Your task to perform on an android device: Go to wifi settings Image 0: 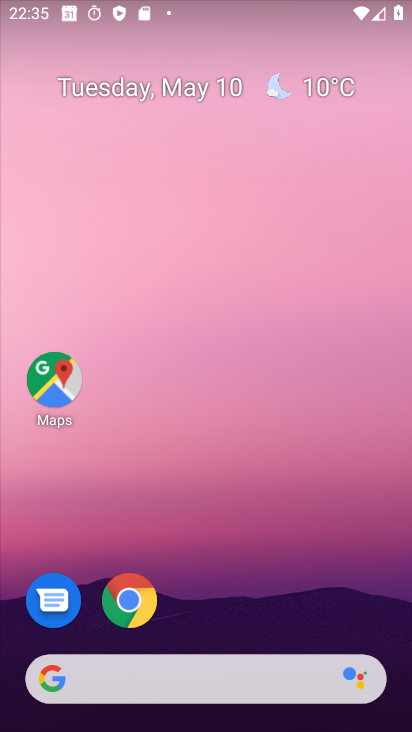
Step 0: drag from (328, 592) to (380, 266)
Your task to perform on an android device: Go to wifi settings Image 1: 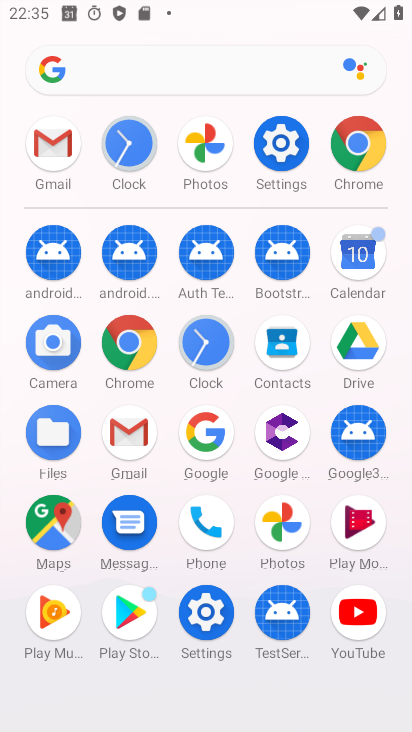
Step 1: click (269, 141)
Your task to perform on an android device: Go to wifi settings Image 2: 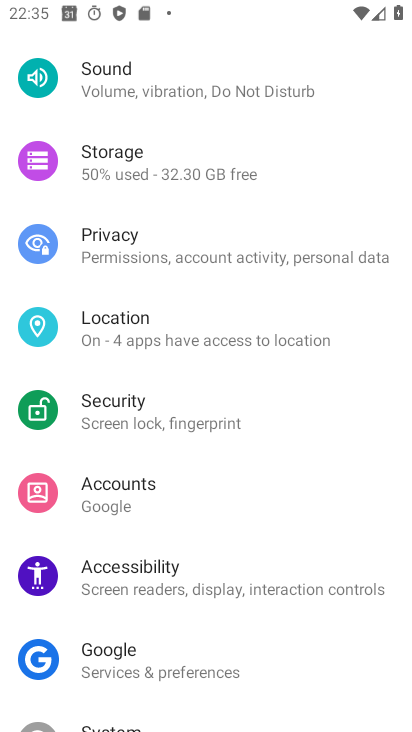
Step 2: drag from (268, 140) to (294, 611)
Your task to perform on an android device: Go to wifi settings Image 3: 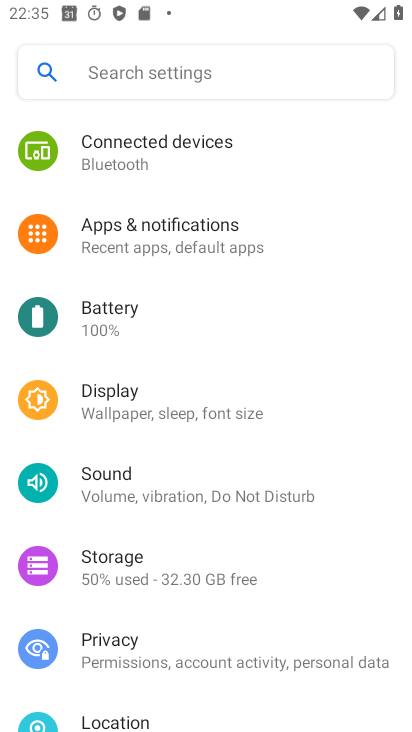
Step 3: drag from (321, 162) to (337, 607)
Your task to perform on an android device: Go to wifi settings Image 4: 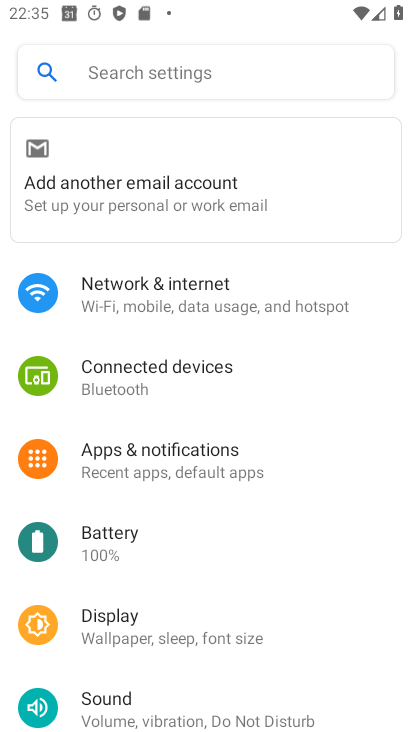
Step 4: click (173, 287)
Your task to perform on an android device: Go to wifi settings Image 5: 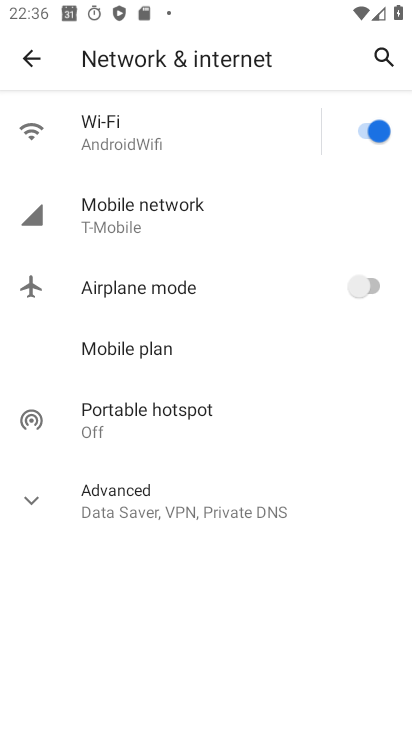
Step 5: click (108, 146)
Your task to perform on an android device: Go to wifi settings Image 6: 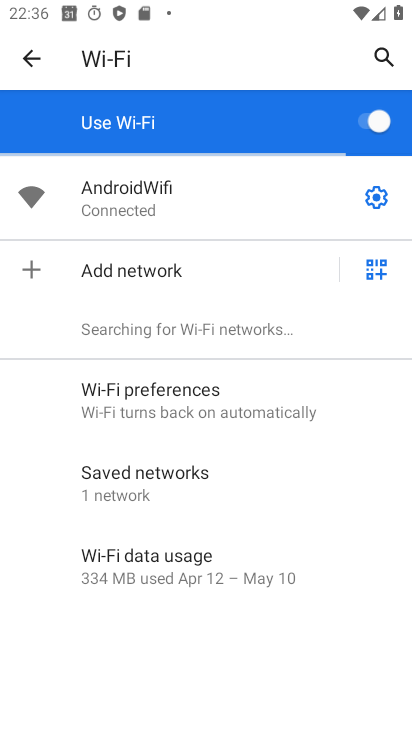
Step 6: task complete